Your task to perform on an android device: What's the price of the Hisense TV? Image 0: 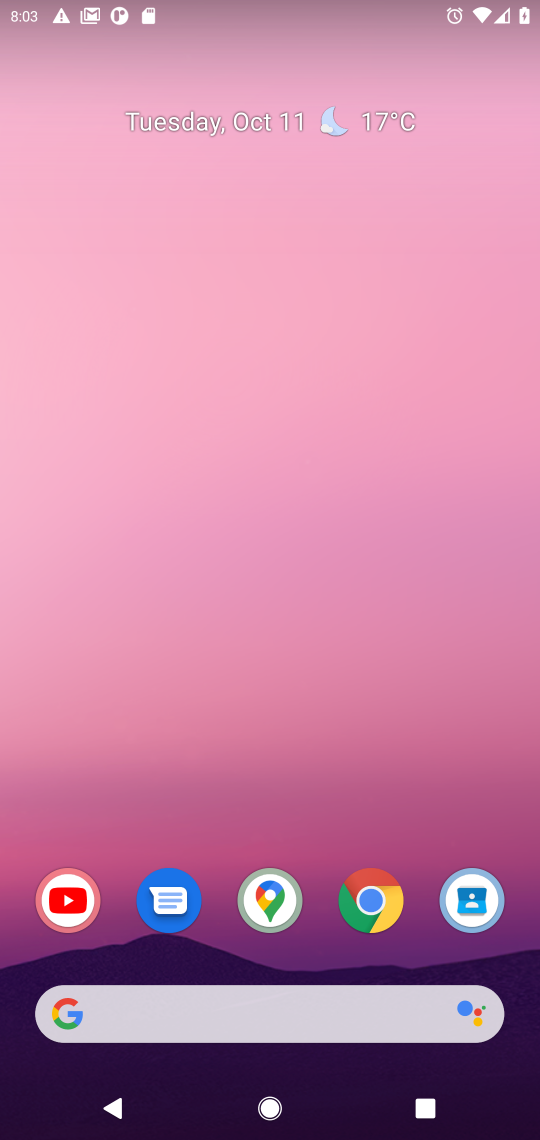
Step 0: click (369, 904)
Your task to perform on an android device: What's the price of the Hisense TV? Image 1: 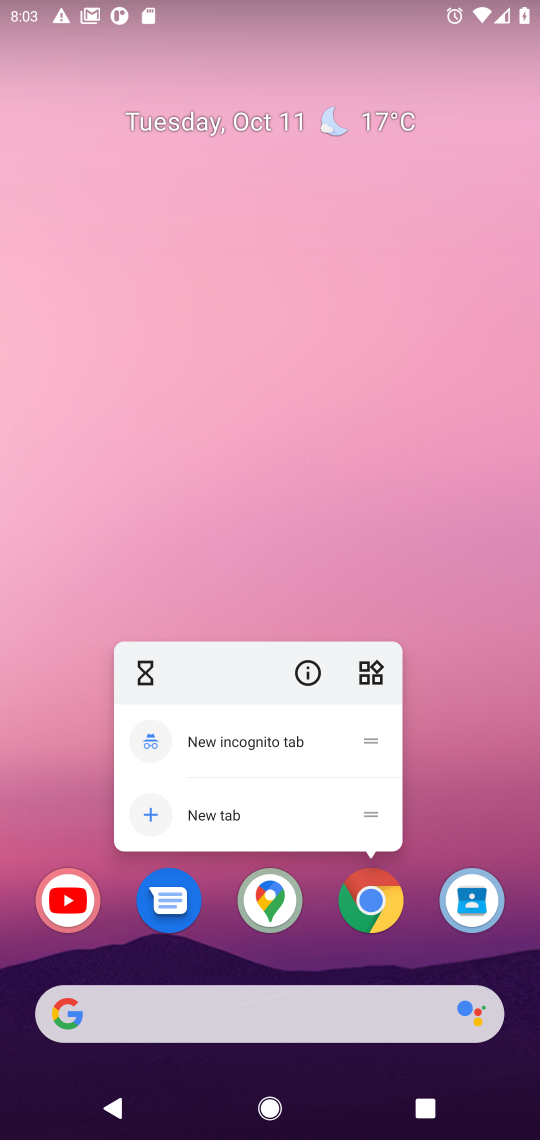
Step 1: click (374, 901)
Your task to perform on an android device: What's the price of the Hisense TV? Image 2: 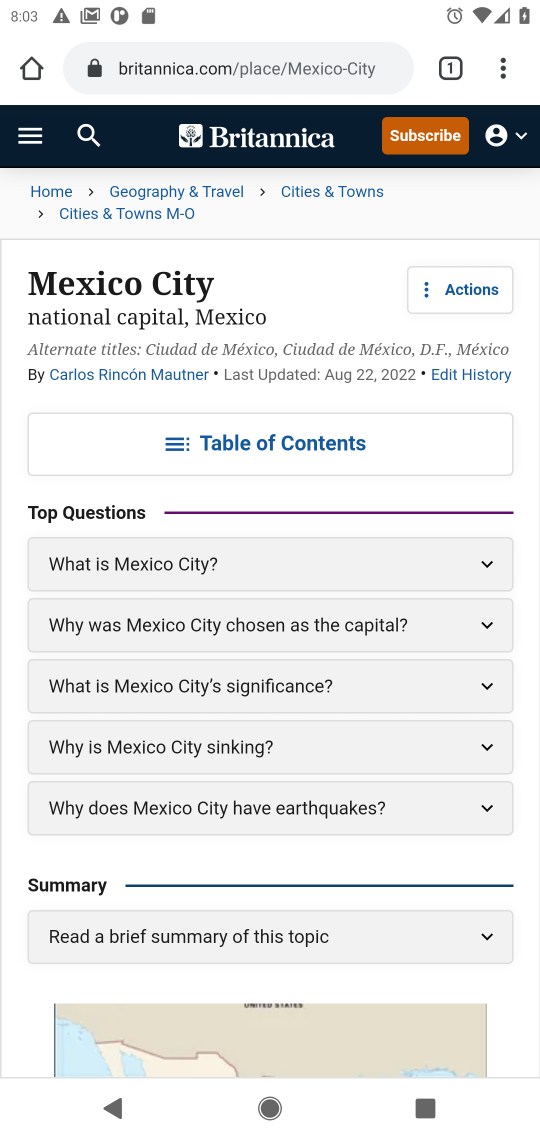
Step 2: click (242, 68)
Your task to perform on an android device: What's the price of the Hisense TV? Image 3: 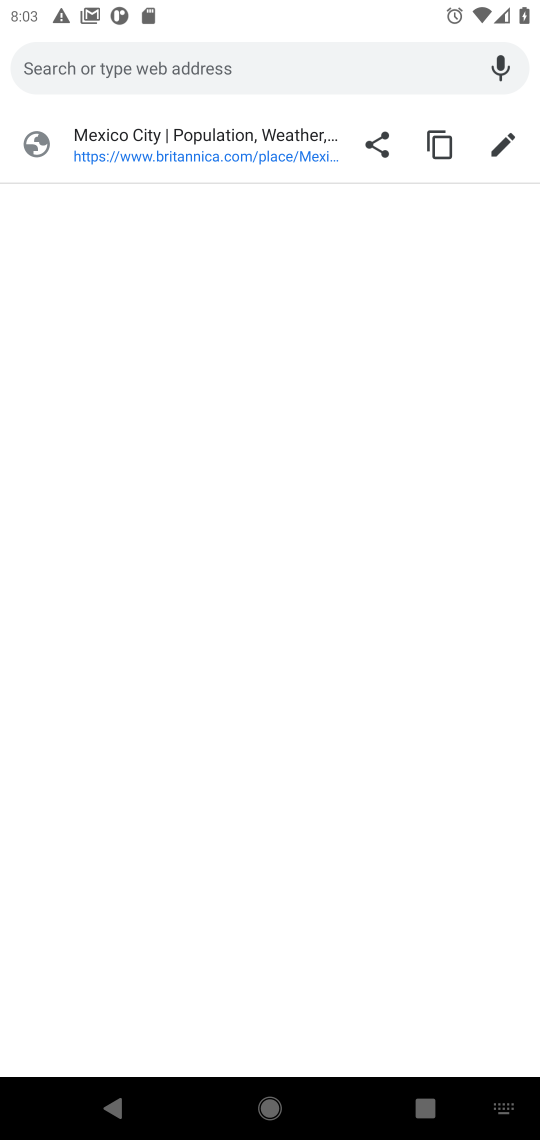
Step 3: type " price of the Hisense TV"
Your task to perform on an android device: What's the price of the Hisense TV? Image 4: 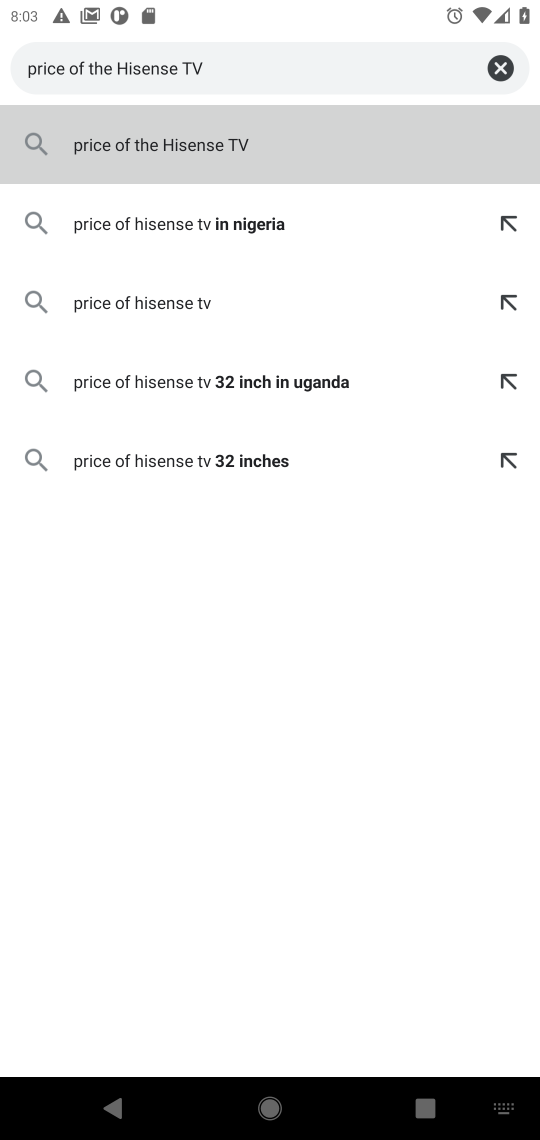
Step 4: press enter
Your task to perform on an android device: What's the price of the Hisense TV? Image 5: 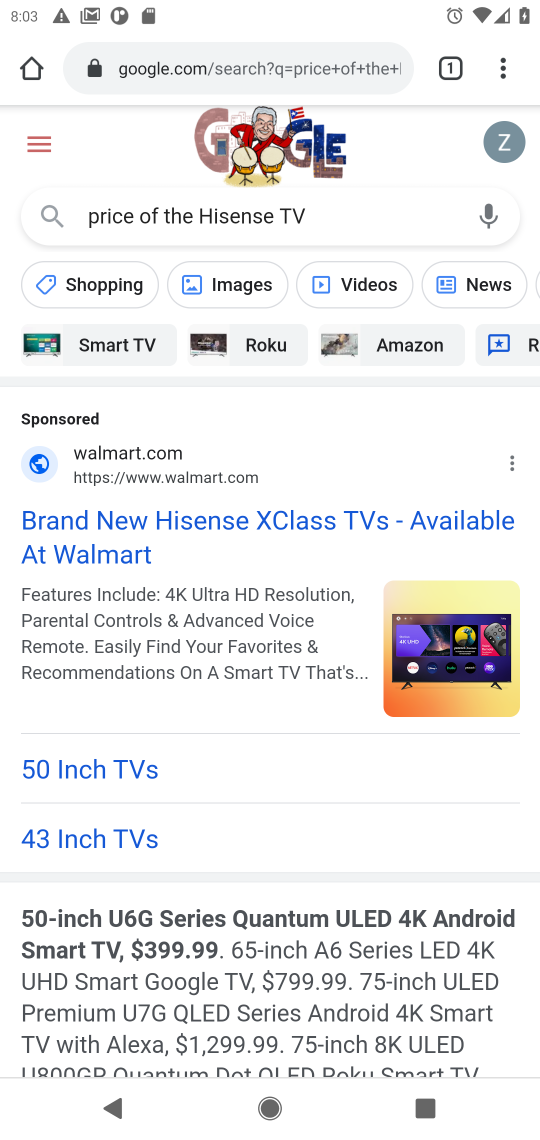
Step 5: drag from (274, 862) to (418, 331)
Your task to perform on an android device: What's the price of the Hisense TV? Image 6: 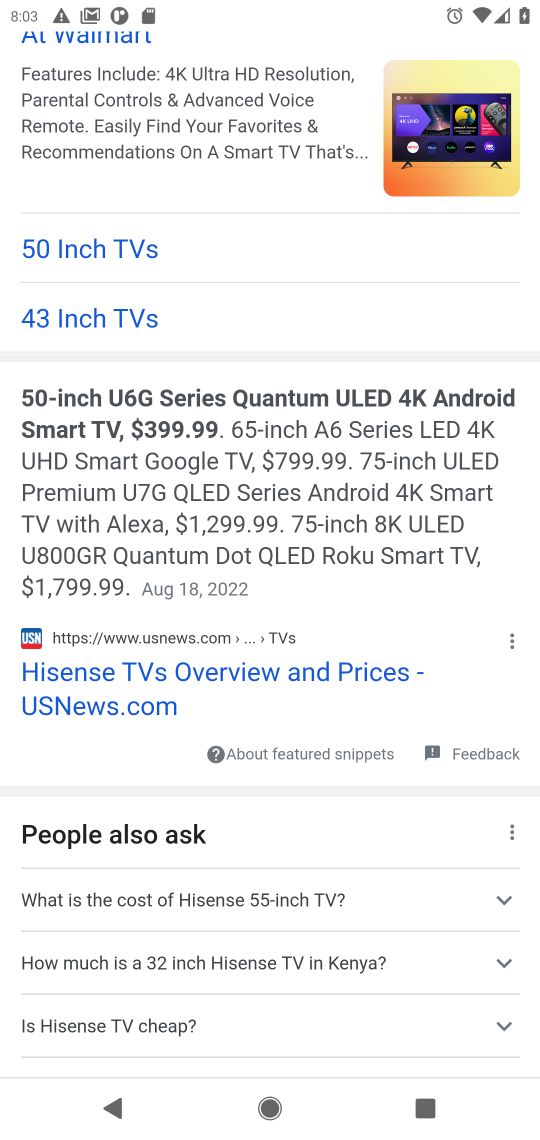
Step 6: click (203, 671)
Your task to perform on an android device: What's the price of the Hisense TV? Image 7: 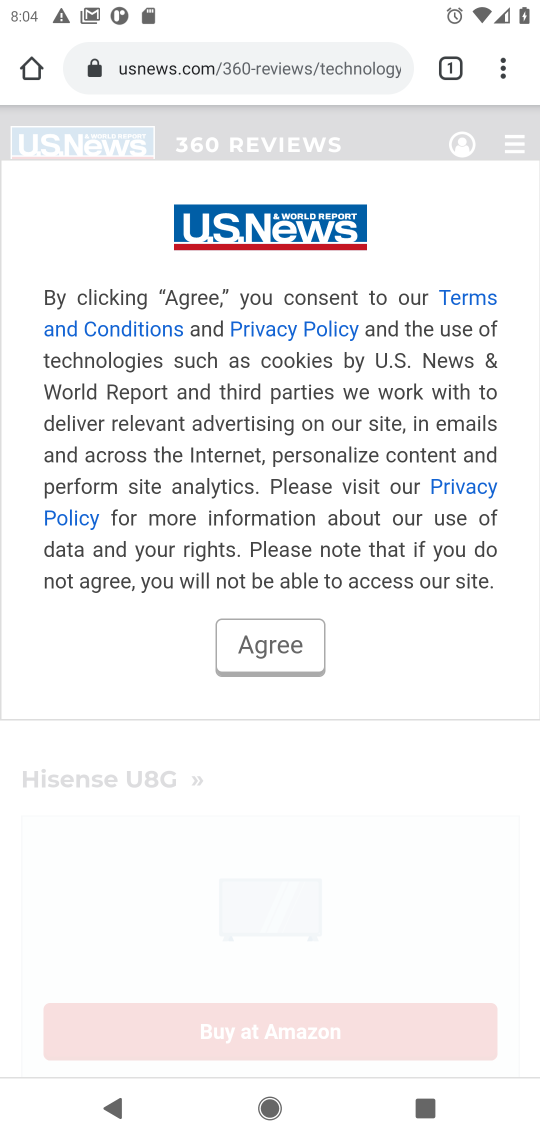
Step 7: click (265, 646)
Your task to perform on an android device: What's the price of the Hisense TV? Image 8: 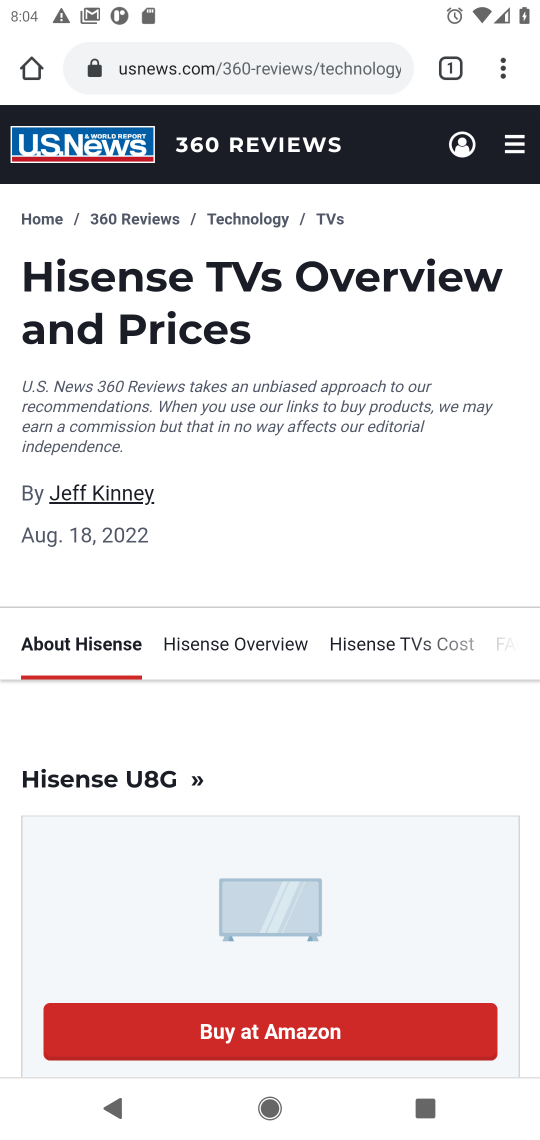
Step 8: task complete